Your task to perform on an android device: move an email to a new category in the gmail app Image 0: 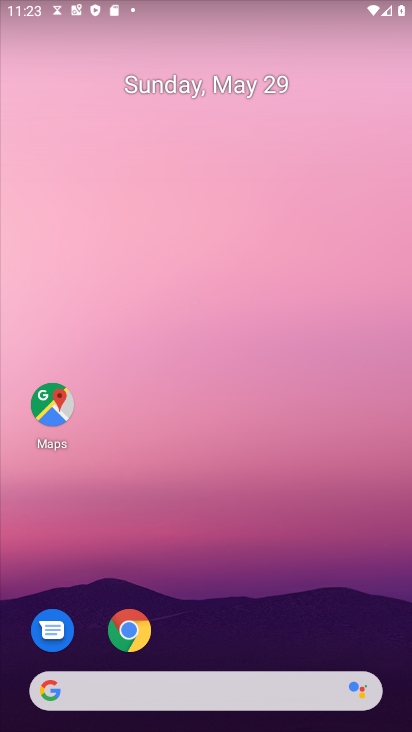
Step 0: drag from (276, 473) to (278, 0)
Your task to perform on an android device: move an email to a new category in the gmail app Image 1: 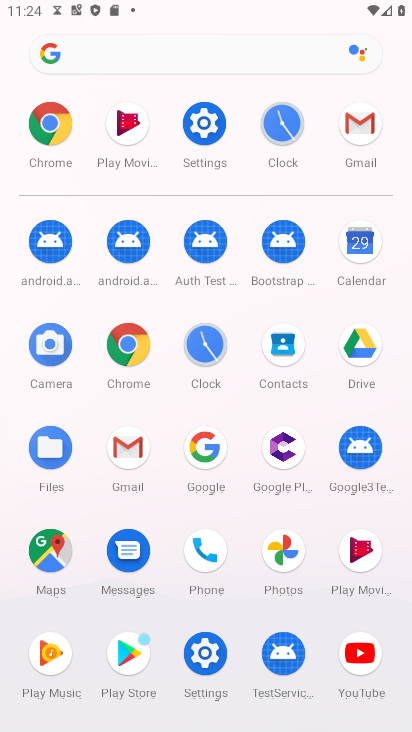
Step 1: click (355, 115)
Your task to perform on an android device: move an email to a new category in the gmail app Image 2: 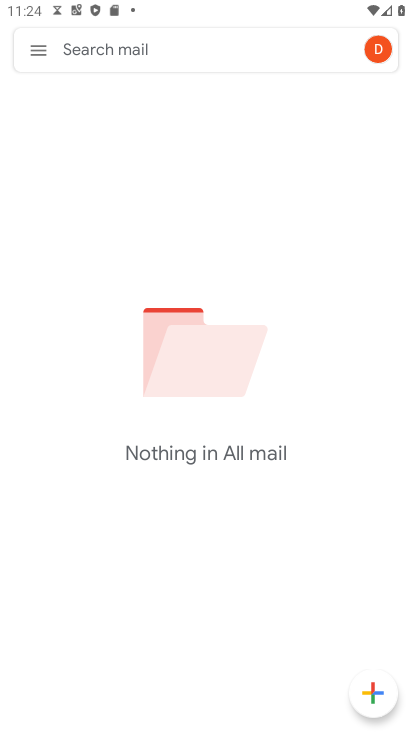
Step 2: click (30, 44)
Your task to perform on an android device: move an email to a new category in the gmail app Image 3: 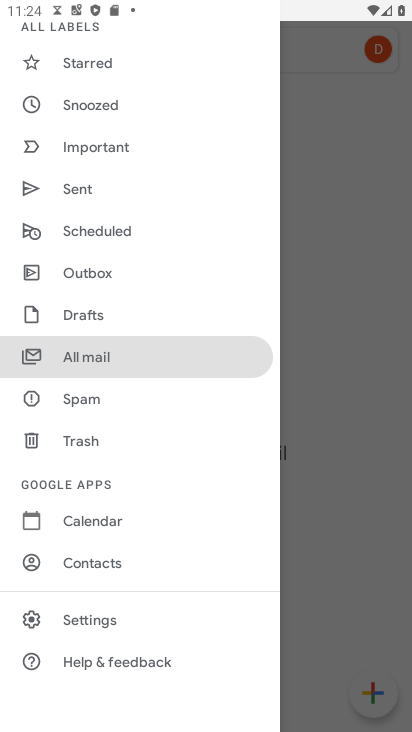
Step 3: drag from (79, 114) to (78, 617)
Your task to perform on an android device: move an email to a new category in the gmail app Image 4: 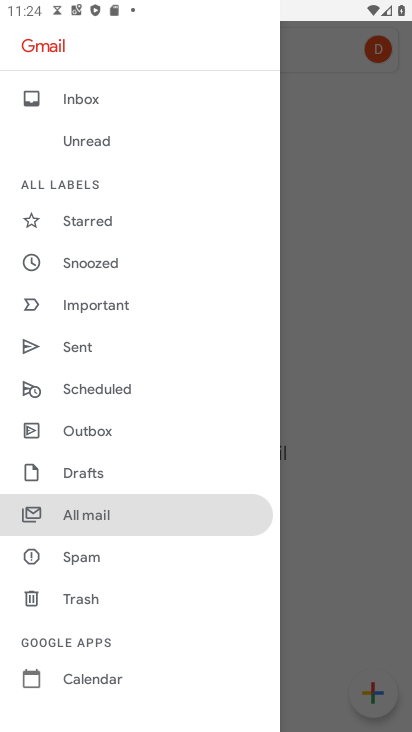
Step 4: drag from (119, 554) to (94, 55)
Your task to perform on an android device: move an email to a new category in the gmail app Image 5: 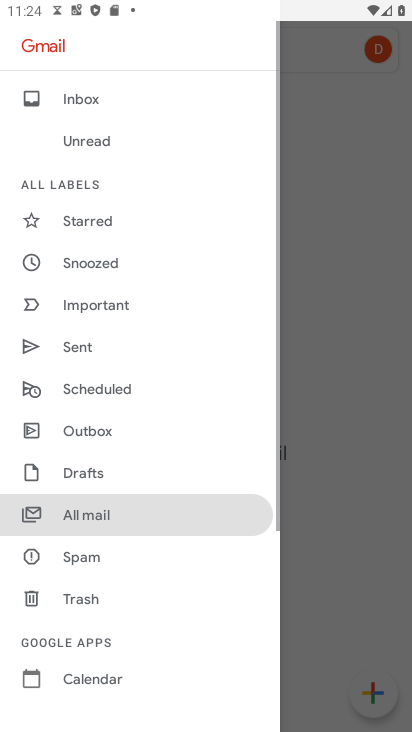
Step 5: drag from (141, 518) to (158, 97)
Your task to perform on an android device: move an email to a new category in the gmail app Image 6: 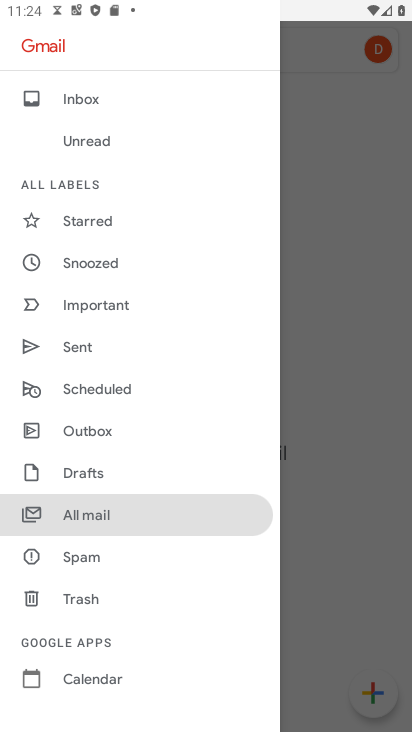
Step 6: drag from (57, 581) to (94, 161)
Your task to perform on an android device: move an email to a new category in the gmail app Image 7: 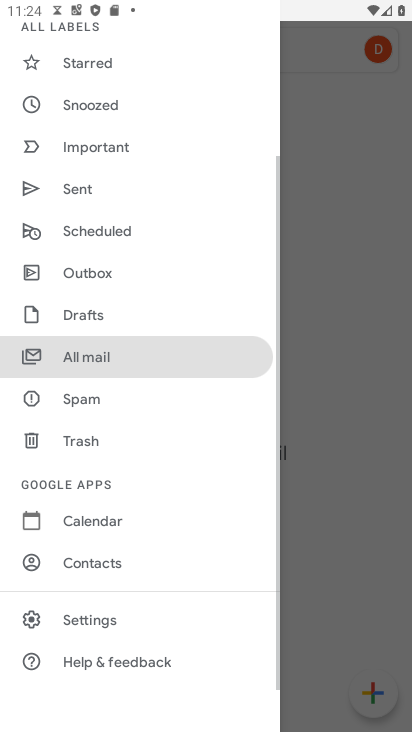
Step 7: click (137, 607)
Your task to perform on an android device: move an email to a new category in the gmail app Image 8: 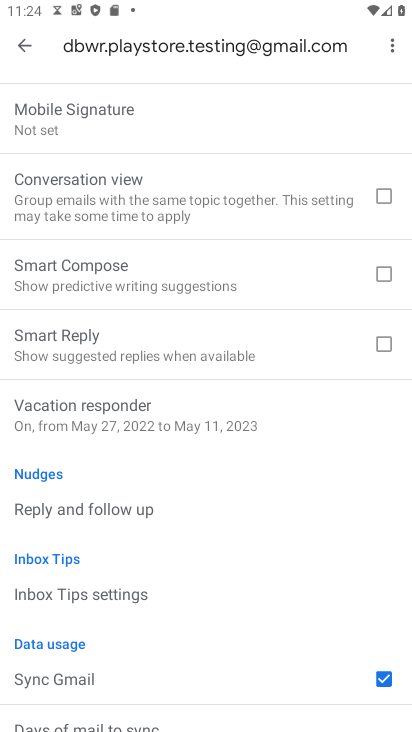
Step 8: task complete